Your task to perform on an android device: Add bose quietcomfort 35 to the cart on target Image 0: 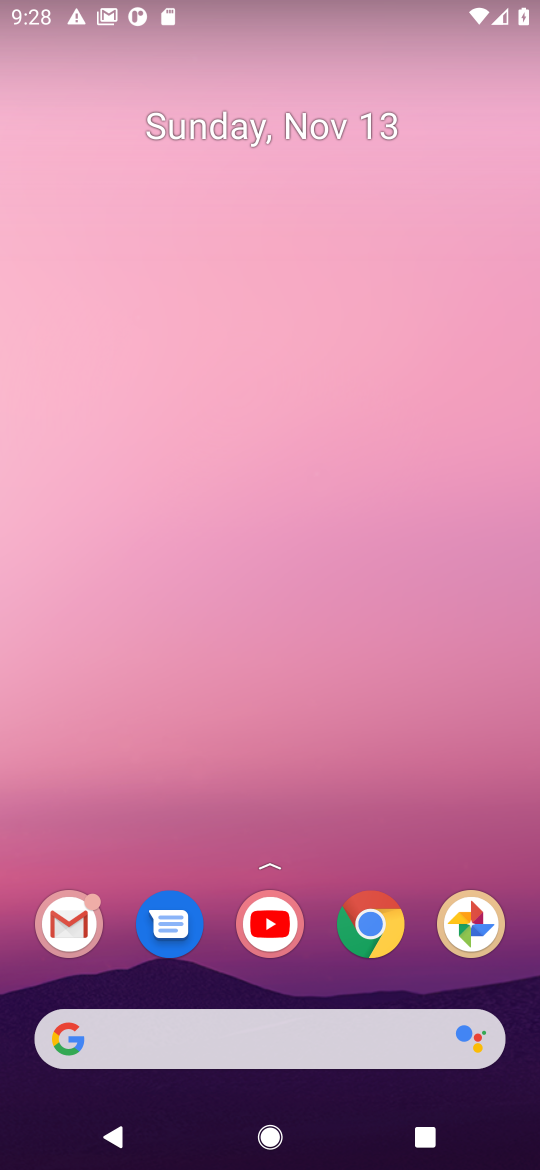
Step 0: click (376, 936)
Your task to perform on an android device: Add bose quietcomfort 35 to the cart on target Image 1: 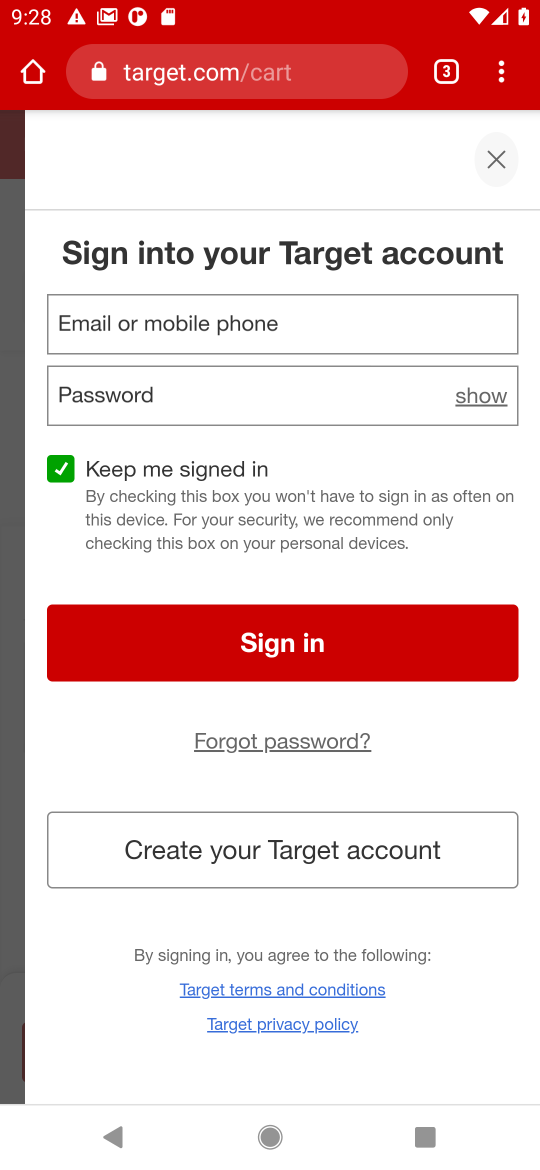
Step 1: click (499, 154)
Your task to perform on an android device: Add bose quietcomfort 35 to the cart on target Image 2: 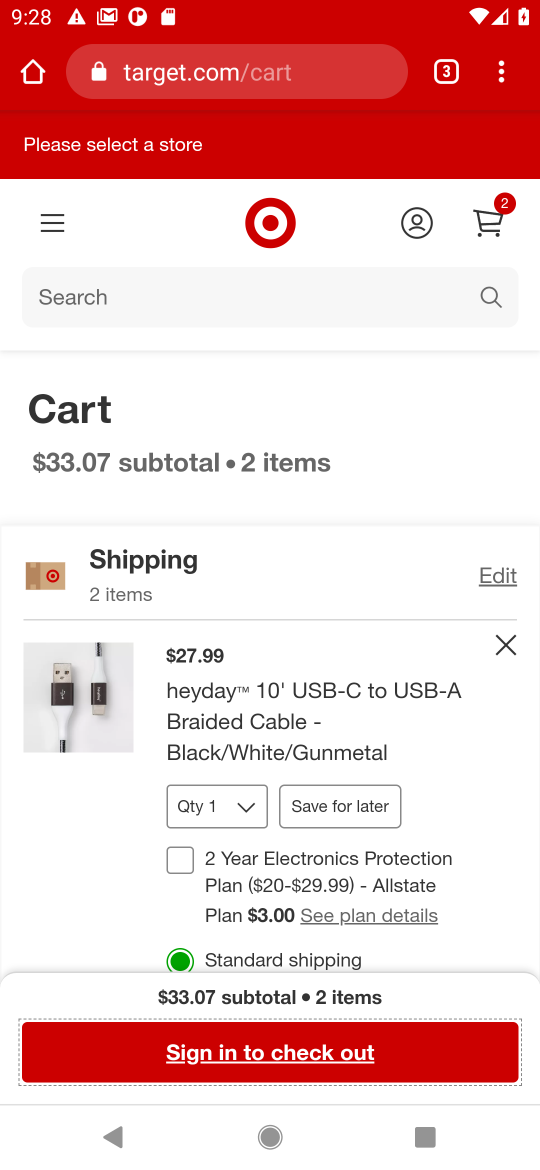
Step 2: click (483, 292)
Your task to perform on an android device: Add bose quietcomfort 35 to the cart on target Image 3: 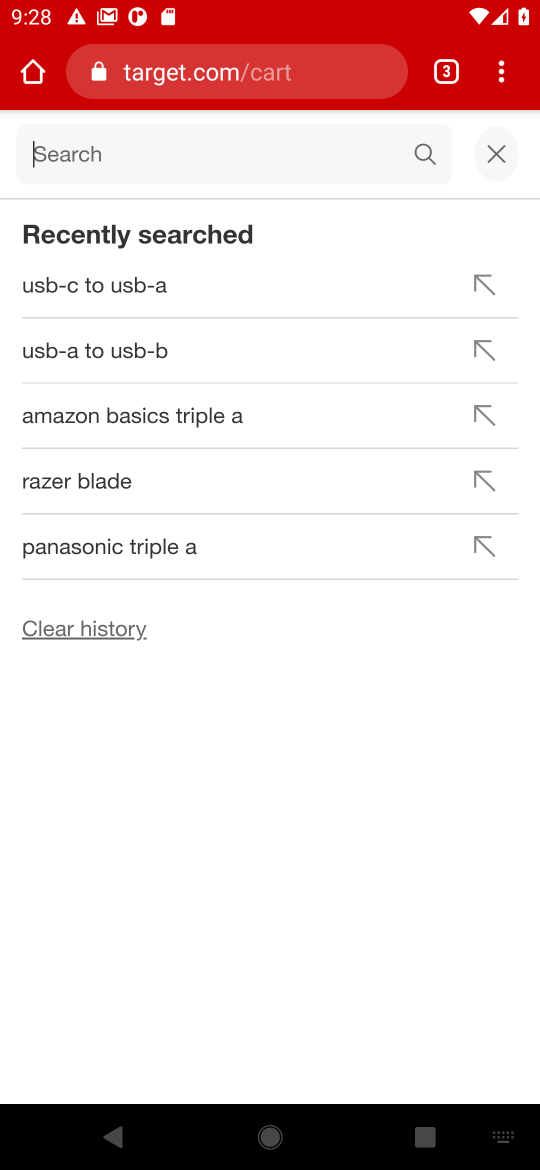
Step 3: type "bose quietcomfort 35"
Your task to perform on an android device: Add bose quietcomfort 35 to the cart on target Image 4: 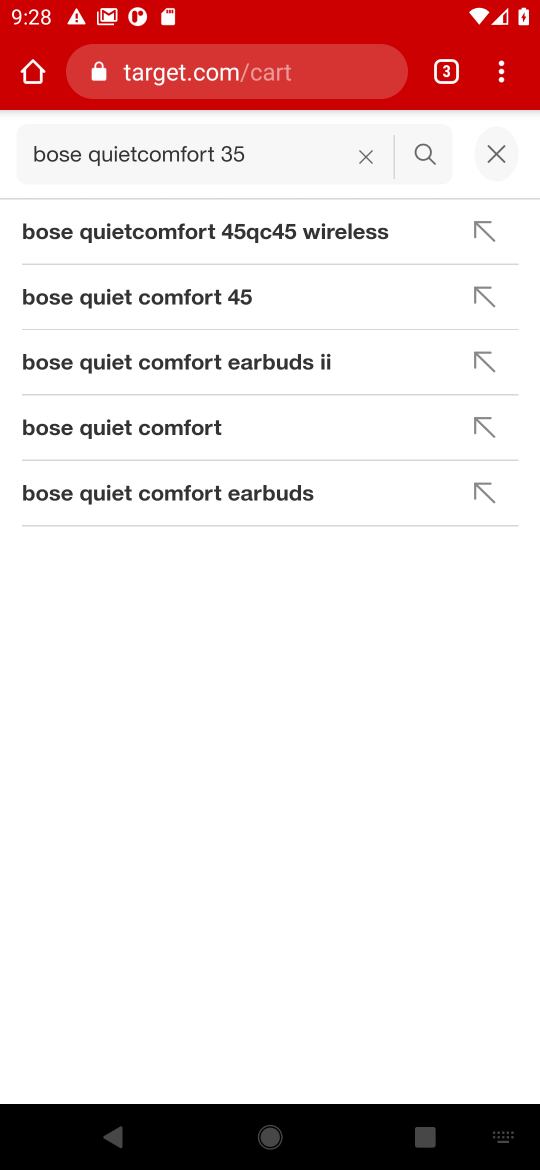
Step 4: click (428, 157)
Your task to perform on an android device: Add bose quietcomfort 35 to the cart on target Image 5: 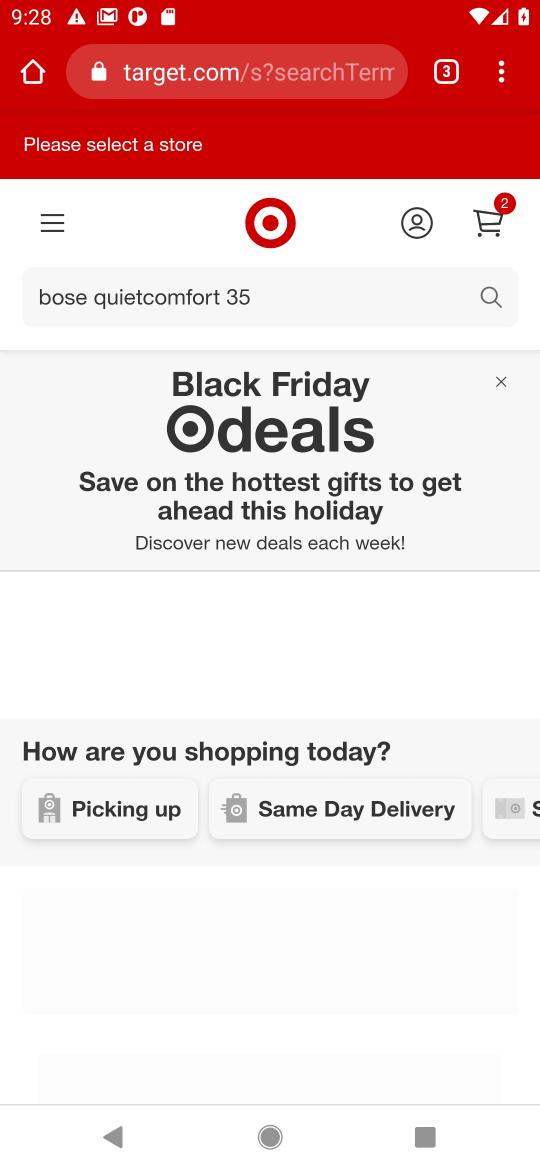
Step 5: task complete